Your task to perform on an android device: turn on data saver in the chrome app Image 0: 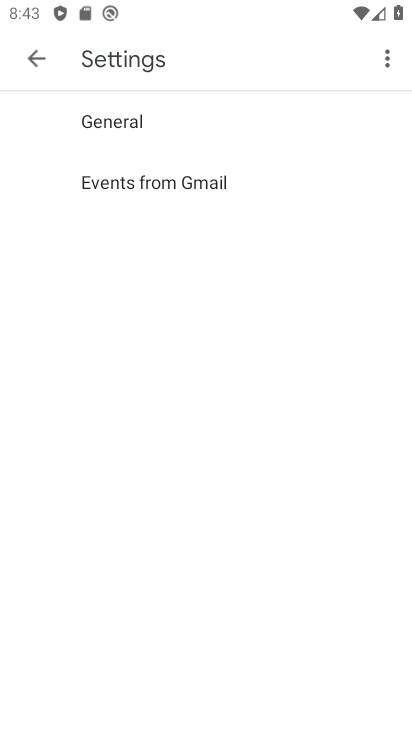
Step 0: press home button
Your task to perform on an android device: turn on data saver in the chrome app Image 1: 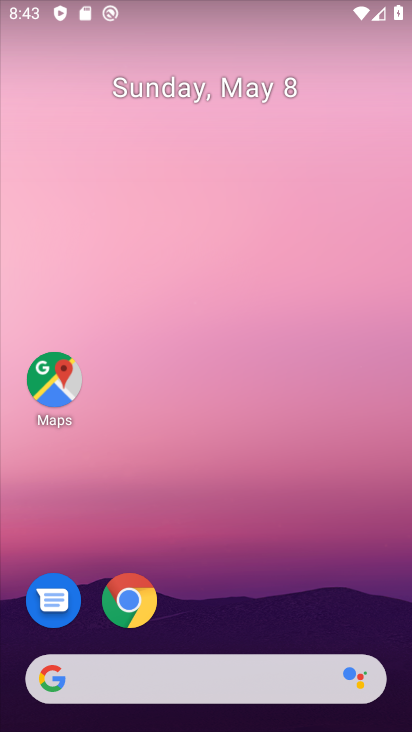
Step 1: click (112, 600)
Your task to perform on an android device: turn on data saver in the chrome app Image 2: 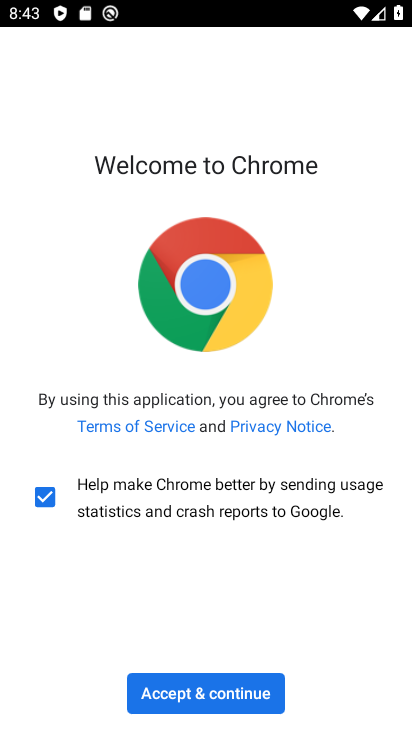
Step 2: click (199, 695)
Your task to perform on an android device: turn on data saver in the chrome app Image 3: 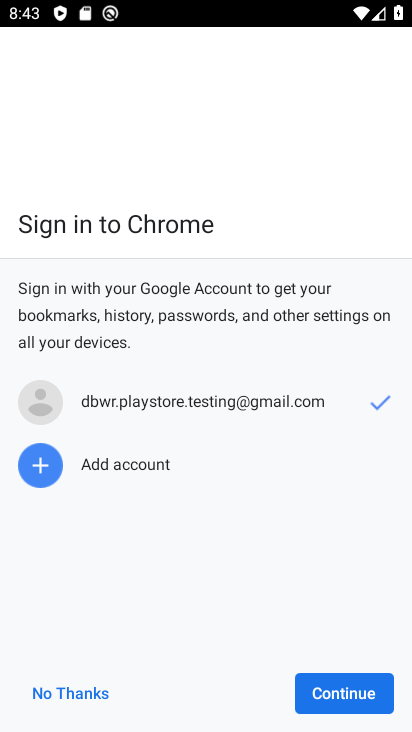
Step 3: click (314, 691)
Your task to perform on an android device: turn on data saver in the chrome app Image 4: 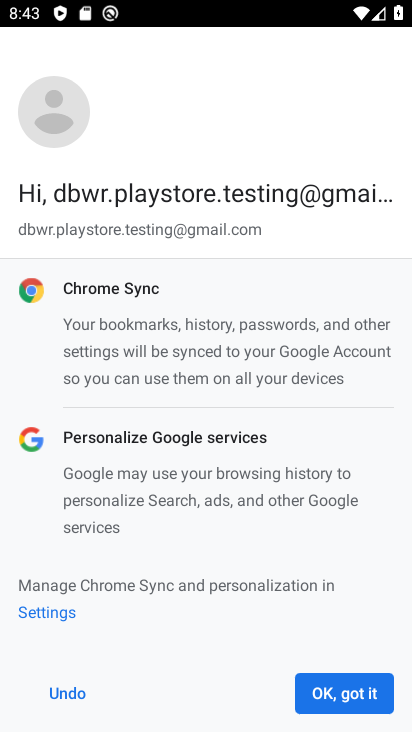
Step 4: click (400, 693)
Your task to perform on an android device: turn on data saver in the chrome app Image 5: 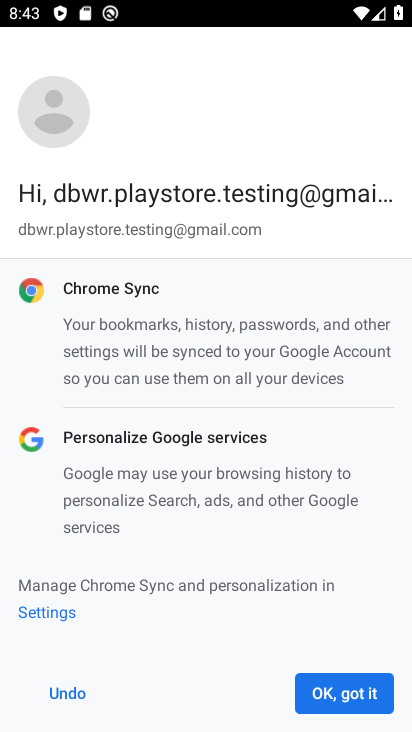
Step 5: click (383, 691)
Your task to perform on an android device: turn on data saver in the chrome app Image 6: 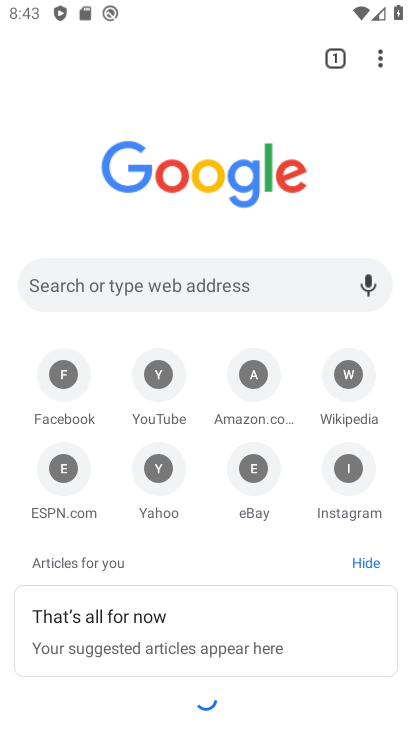
Step 6: click (388, 52)
Your task to perform on an android device: turn on data saver in the chrome app Image 7: 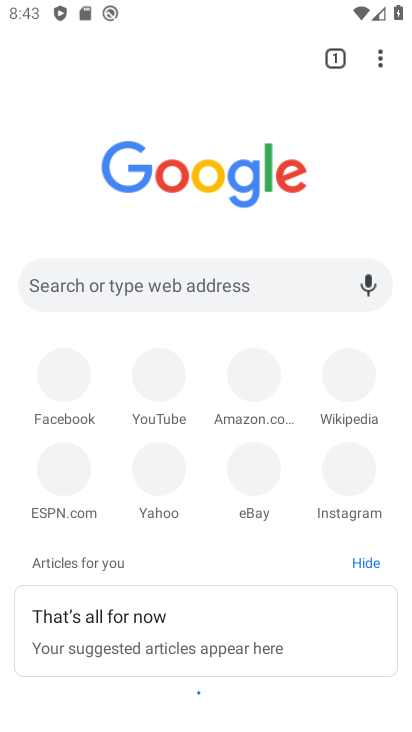
Step 7: click (381, 59)
Your task to perform on an android device: turn on data saver in the chrome app Image 8: 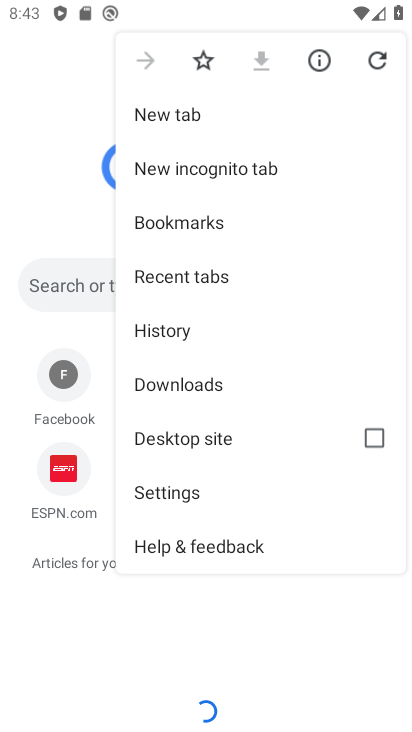
Step 8: click (175, 489)
Your task to perform on an android device: turn on data saver in the chrome app Image 9: 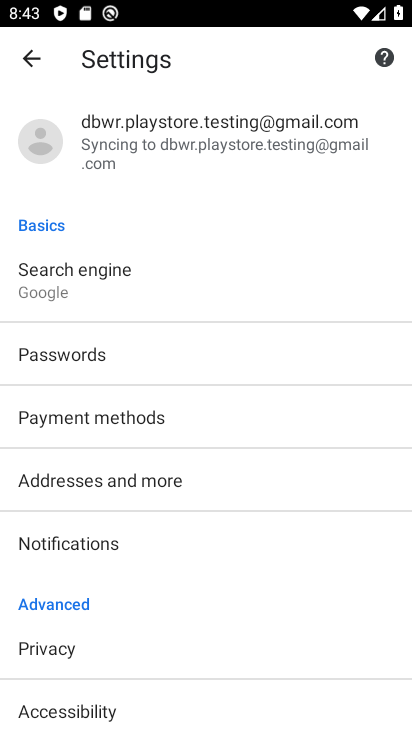
Step 9: drag from (192, 530) to (106, 4)
Your task to perform on an android device: turn on data saver in the chrome app Image 10: 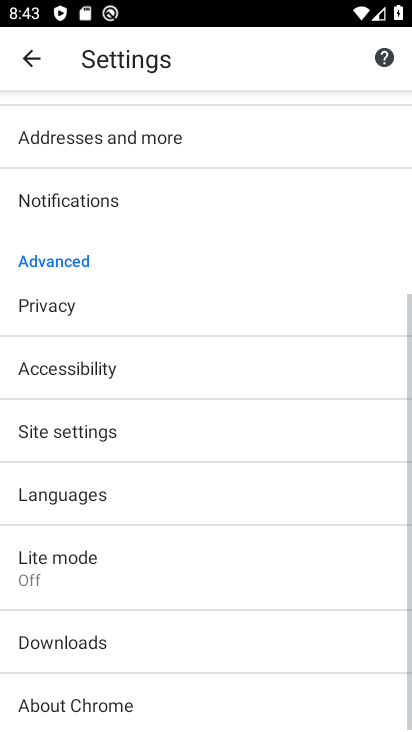
Step 10: click (56, 571)
Your task to perform on an android device: turn on data saver in the chrome app Image 11: 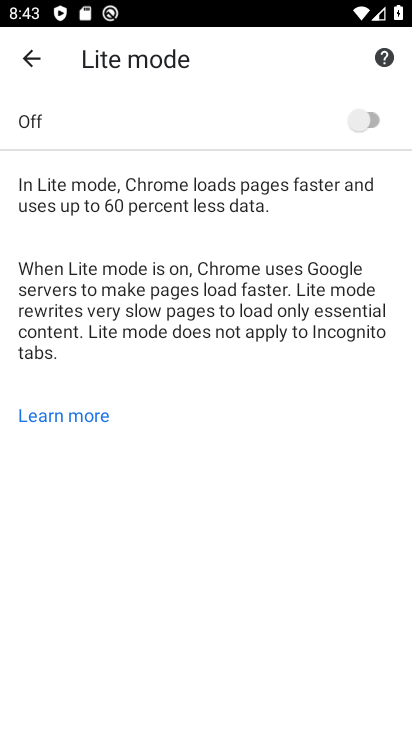
Step 11: click (371, 110)
Your task to perform on an android device: turn on data saver in the chrome app Image 12: 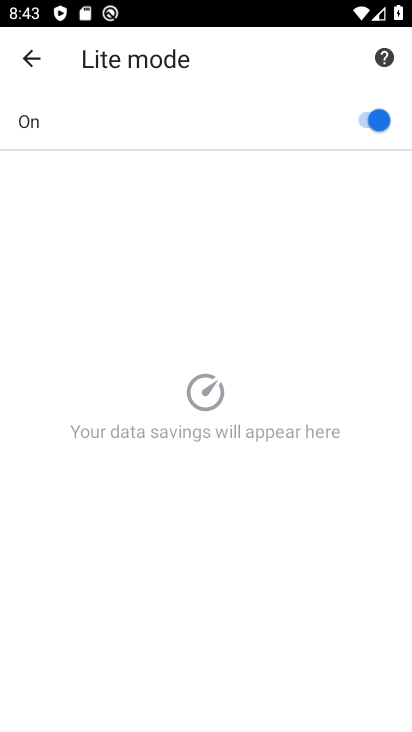
Step 12: task complete